Your task to perform on an android device: Where can I buy a nice beach towel? Image 0: 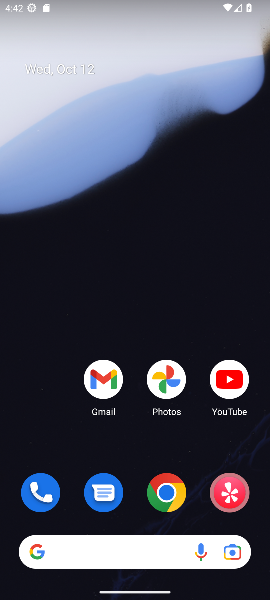
Step 0: click (168, 495)
Your task to perform on an android device: Where can I buy a nice beach towel? Image 1: 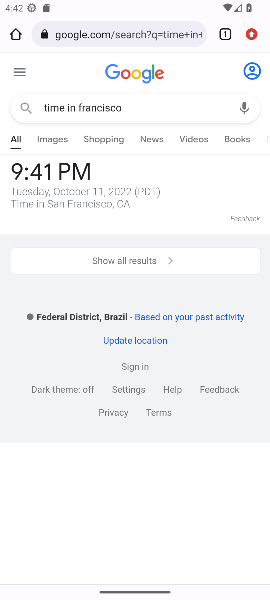
Step 1: click (92, 36)
Your task to perform on an android device: Where can I buy a nice beach towel? Image 2: 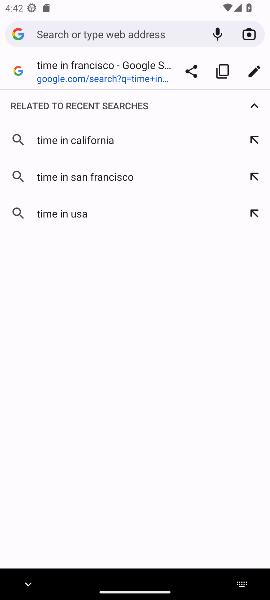
Step 2: type " beach towel"
Your task to perform on an android device: Where can I buy a nice beach towel? Image 3: 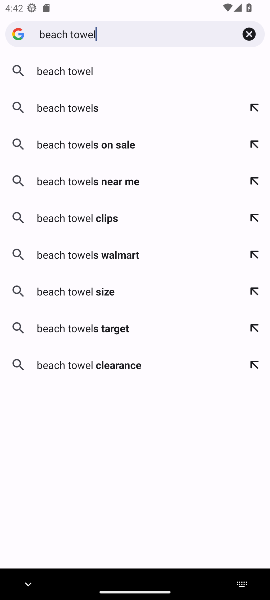
Step 3: click (66, 111)
Your task to perform on an android device: Where can I buy a nice beach towel? Image 4: 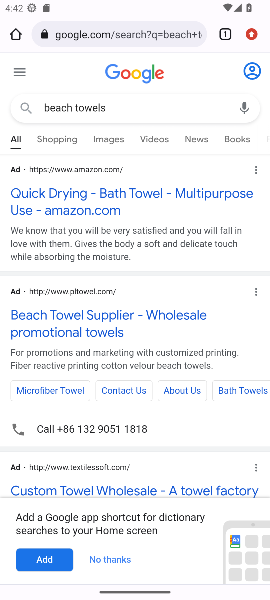
Step 4: click (58, 137)
Your task to perform on an android device: Where can I buy a nice beach towel? Image 5: 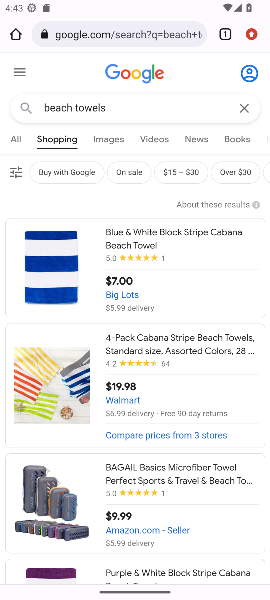
Step 5: task complete